Your task to perform on an android device: check storage Image 0: 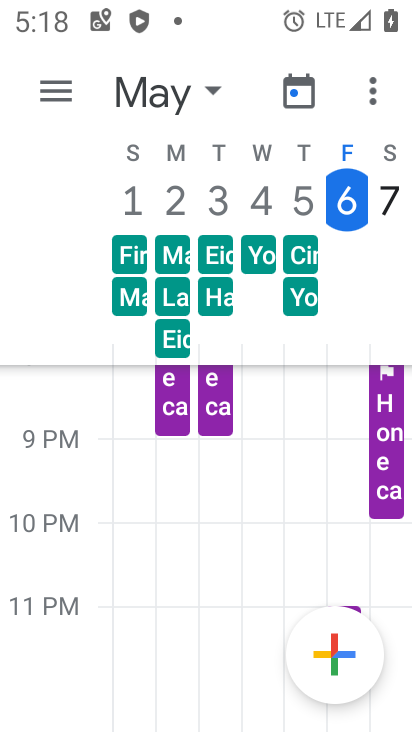
Step 0: press home button
Your task to perform on an android device: check storage Image 1: 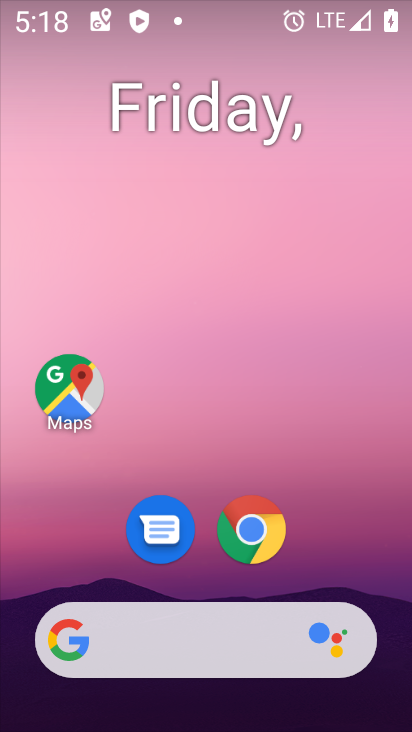
Step 1: drag from (332, 573) to (207, 146)
Your task to perform on an android device: check storage Image 2: 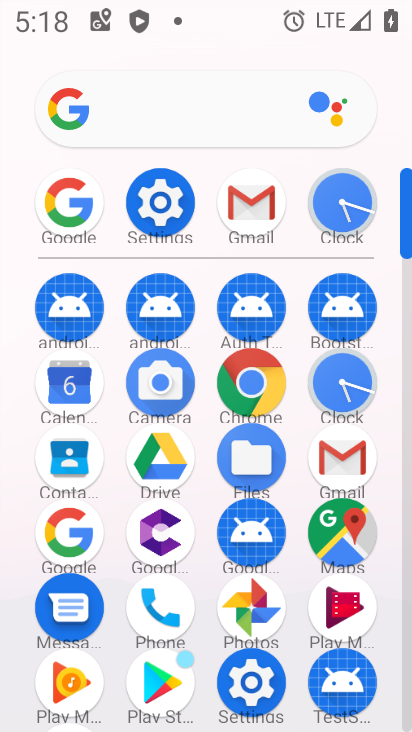
Step 2: click (154, 213)
Your task to perform on an android device: check storage Image 3: 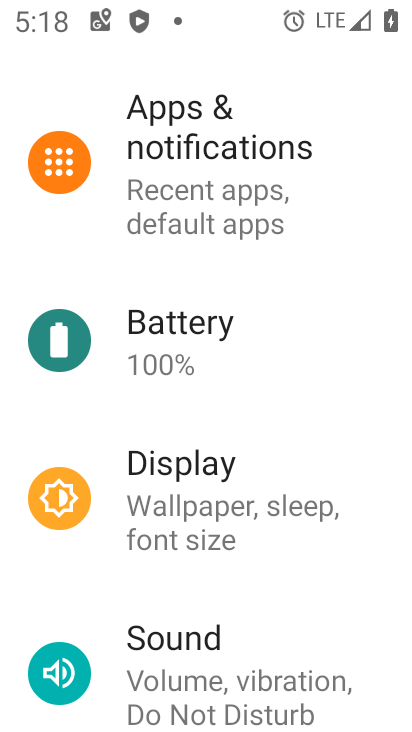
Step 3: drag from (261, 595) to (205, 207)
Your task to perform on an android device: check storage Image 4: 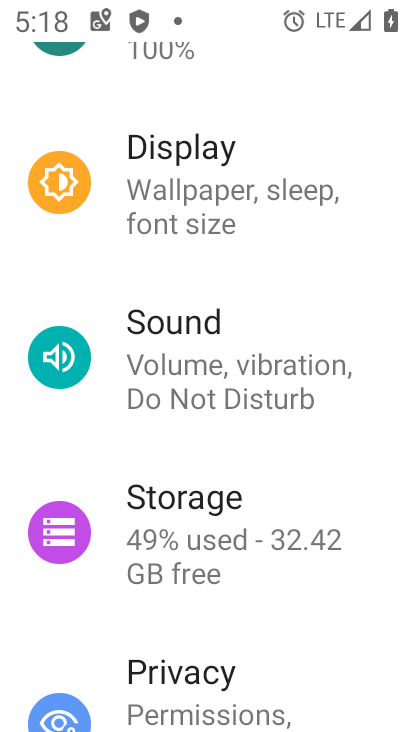
Step 4: click (210, 516)
Your task to perform on an android device: check storage Image 5: 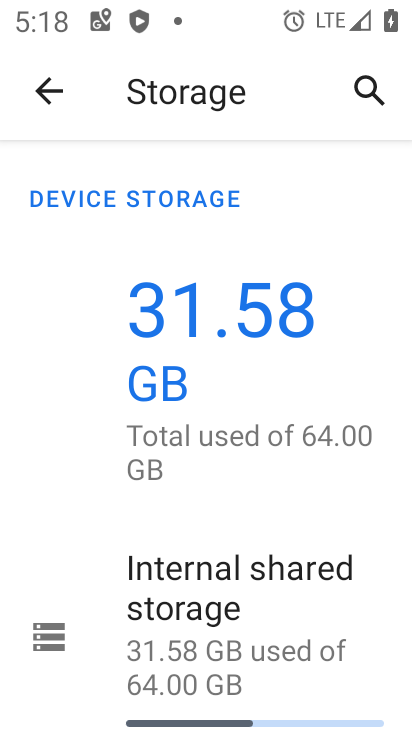
Step 5: task complete